Your task to perform on an android device: check storage Image 0: 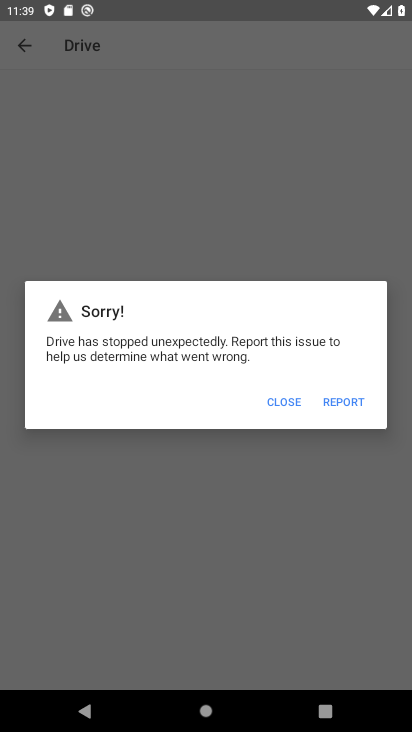
Step 0: press home button
Your task to perform on an android device: check storage Image 1: 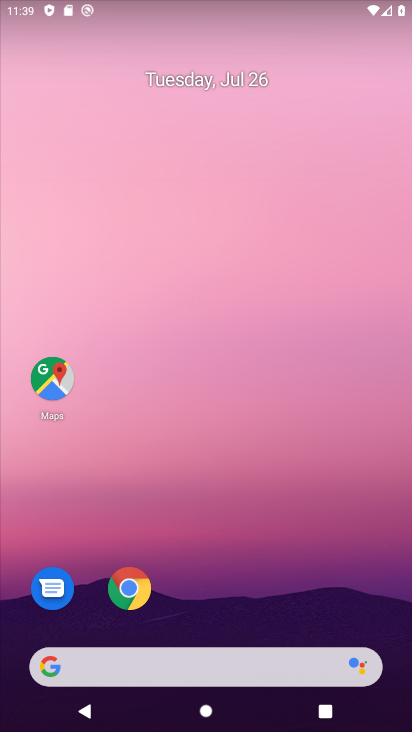
Step 1: drag from (14, 691) to (323, 62)
Your task to perform on an android device: check storage Image 2: 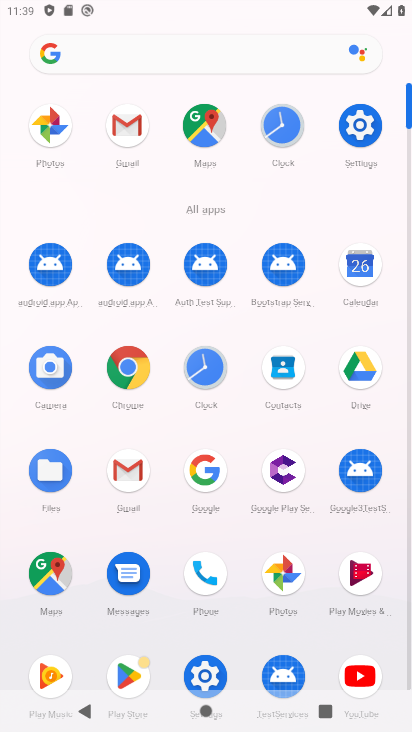
Step 2: click (198, 683)
Your task to perform on an android device: check storage Image 3: 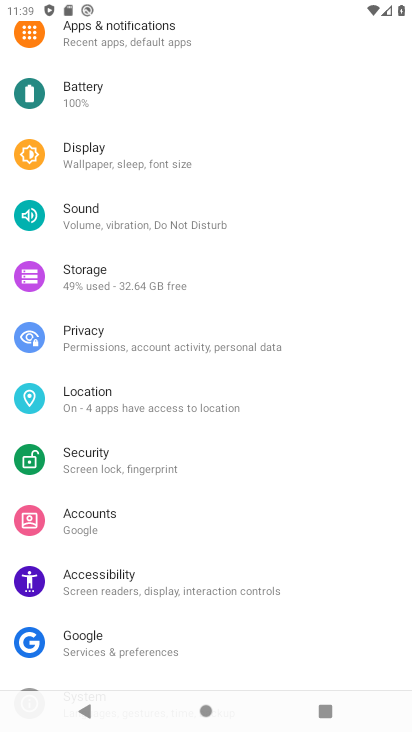
Step 3: click (117, 273)
Your task to perform on an android device: check storage Image 4: 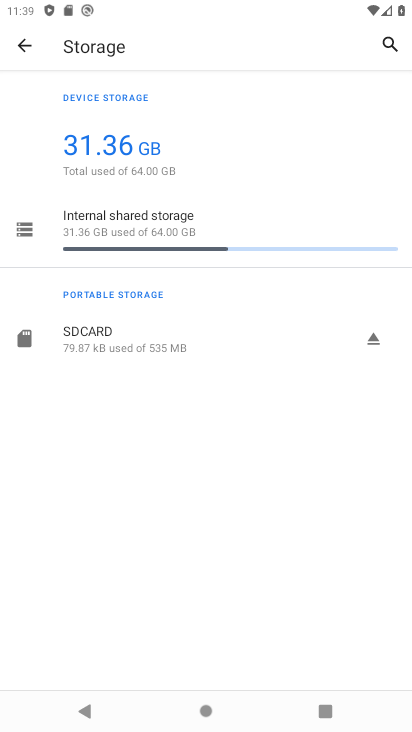
Step 4: task complete